Your task to perform on an android device: Show me recent news Image 0: 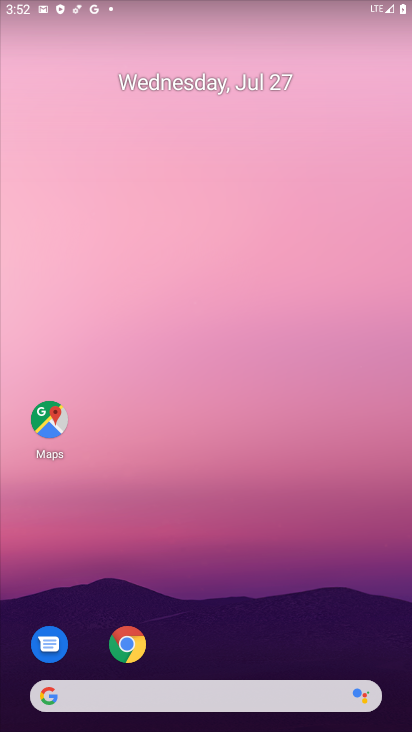
Step 0: drag from (37, 231) to (408, 230)
Your task to perform on an android device: Show me recent news Image 1: 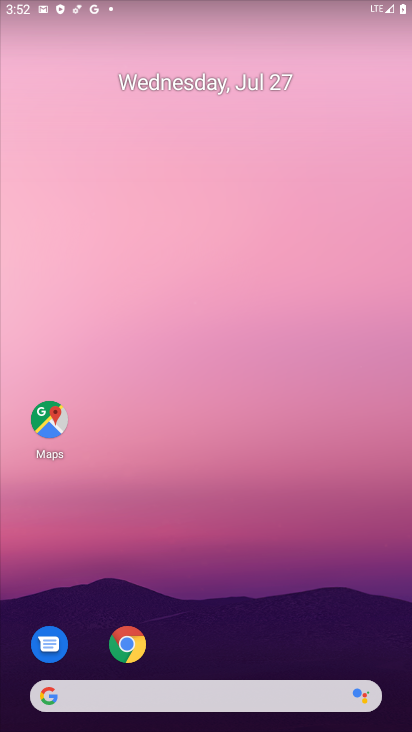
Step 1: task complete